Your task to perform on an android device: What is the news today? Image 0: 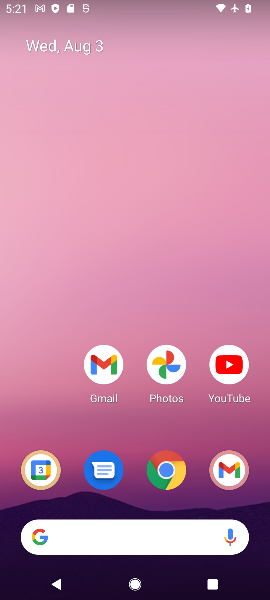
Step 0: drag from (133, 419) to (172, 111)
Your task to perform on an android device: What is the news today? Image 1: 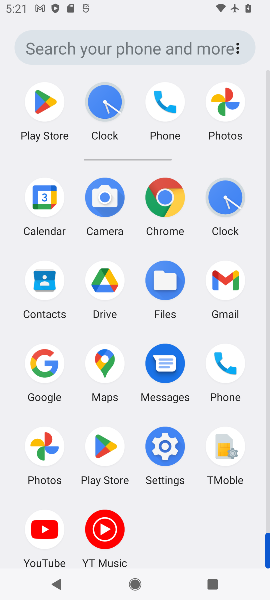
Step 1: click (169, 197)
Your task to perform on an android device: What is the news today? Image 2: 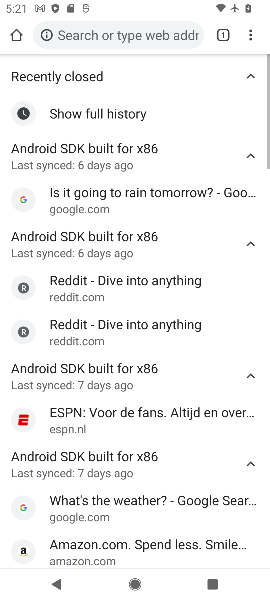
Step 2: click (155, 27)
Your task to perform on an android device: What is the news today? Image 3: 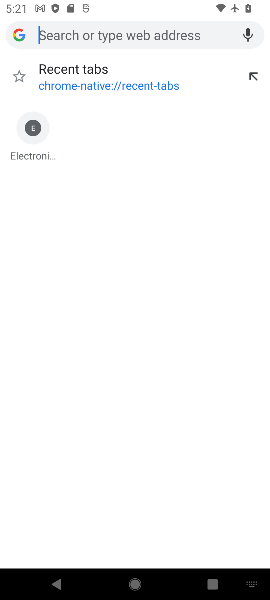
Step 3: type "news"
Your task to perform on an android device: What is the news today? Image 4: 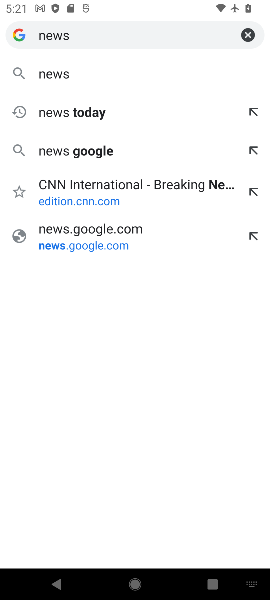
Step 4: click (69, 75)
Your task to perform on an android device: What is the news today? Image 5: 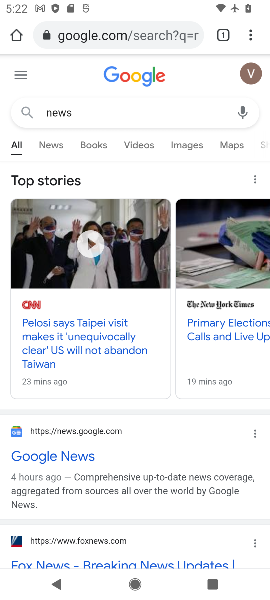
Step 5: click (23, 450)
Your task to perform on an android device: What is the news today? Image 6: 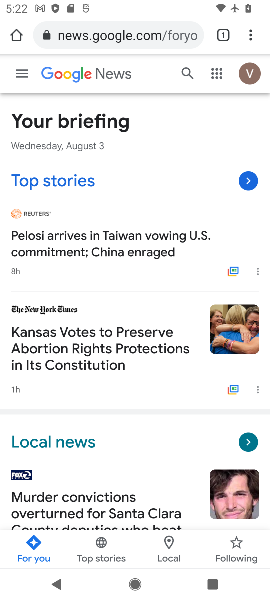
Step 6: task complete